Your task to perform on an android device: turn pop-ups on in chrome Image 0: 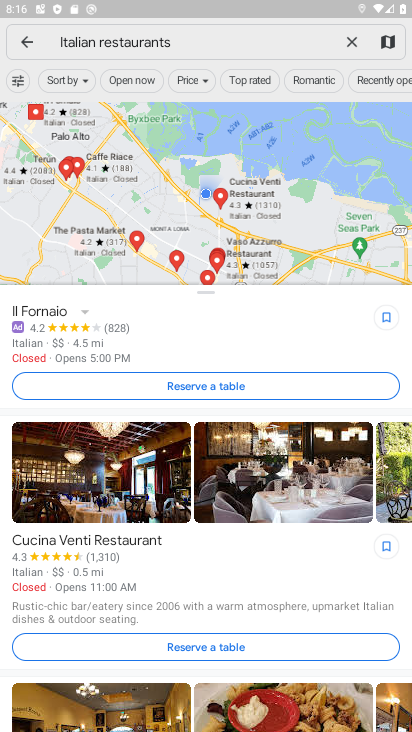
Step 0: press home button
Your task to perform on an android device: turn pop-ups on in chrome Image 1: 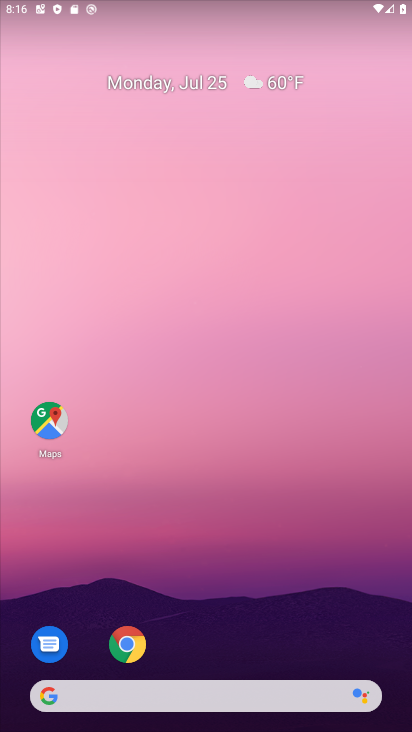
Step 1: click (132, 638)
Your task to perform on an android device: turn pop-ups on in chrome Image 2: 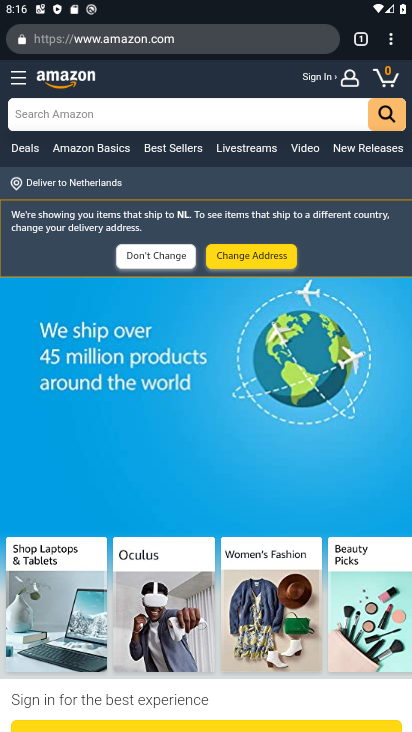
Step 2: task complete